Your task to perform on an android device: show emergency info Image 0: 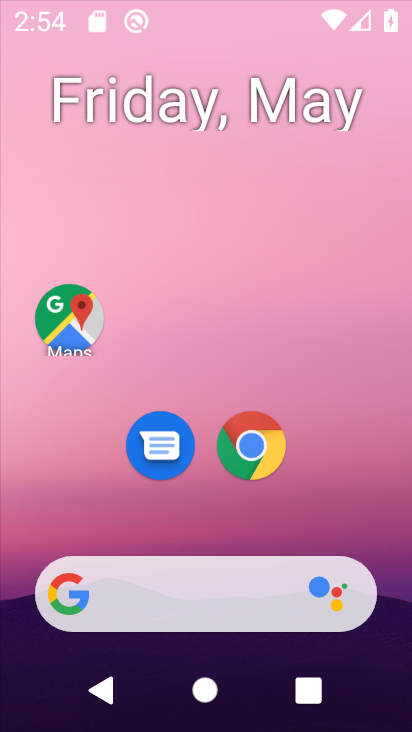
Step 0: click (386, 533)
Your task to perform on an android device: show emergency info Image 1: 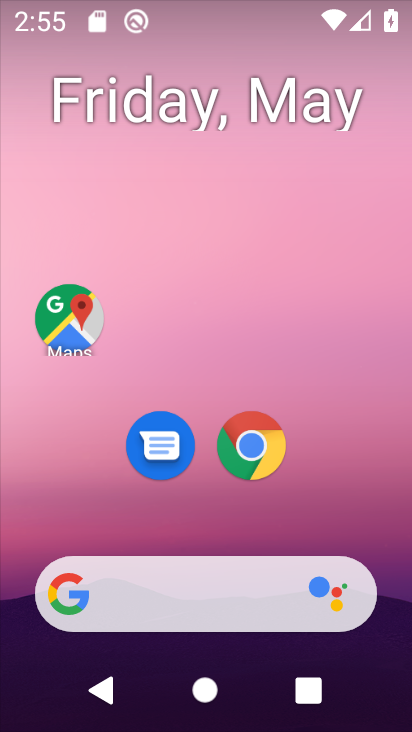
Step 1: drag from (226, 551) to (292, 253)
Your task to perform on an android device: show emergency info Image 2: 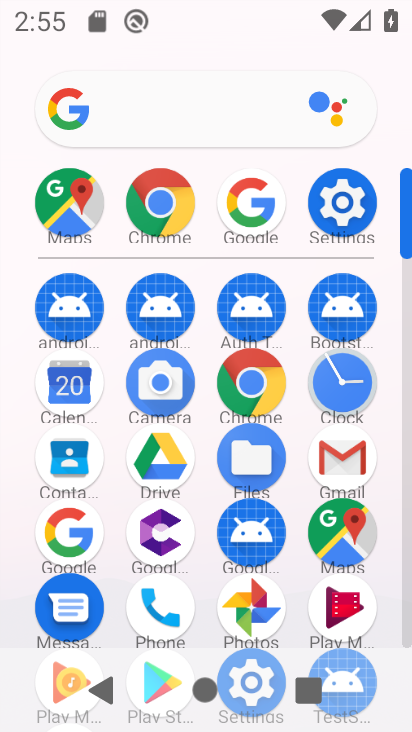
Step 2: click (347, 197)
Your task to perform on an android device: show emergency info Image 3: 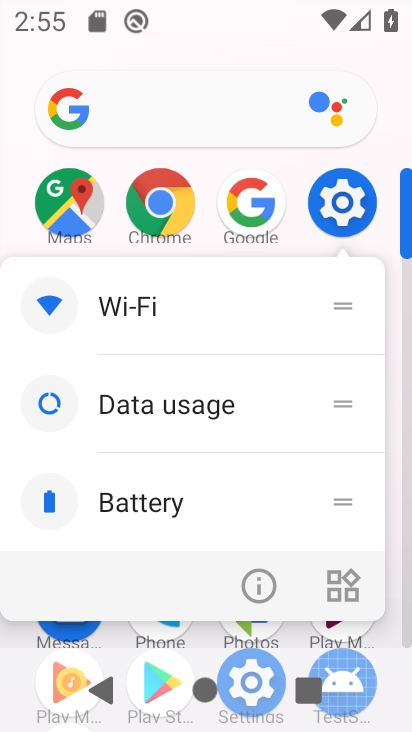
Step 3: click (244, 579)
Your task to perform on an android device: show emergency info Image 4: 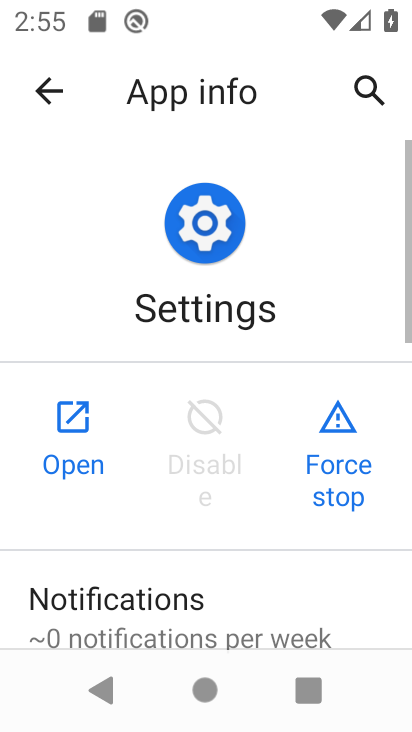
Step 4: click (67, 444)
Your task to perform on an android device: show emergency info Image 5: 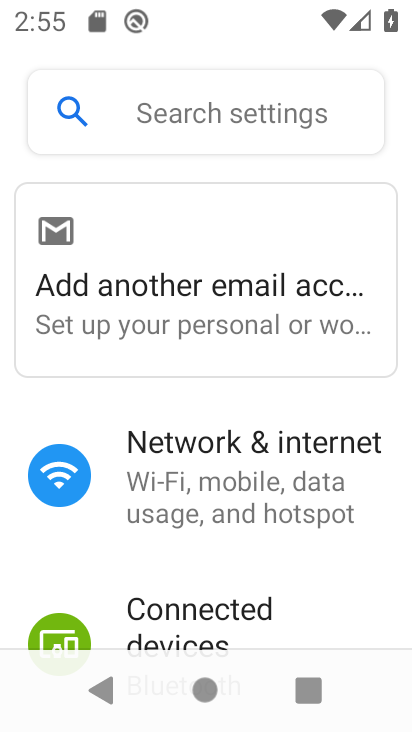
Step 5: drag from (224, 522) to (411, 232)
Your task to perform on an android device: show emergency info Image 6: 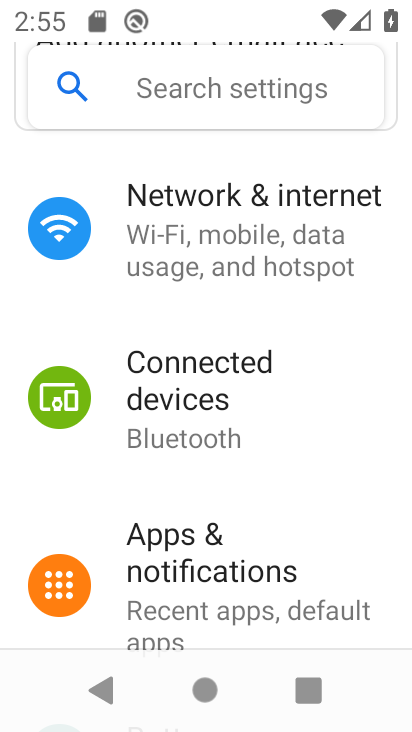
Step 6: drag from (229, 567) to (268, 189)
Your task to perform on an android device: show emergency info Image 7: 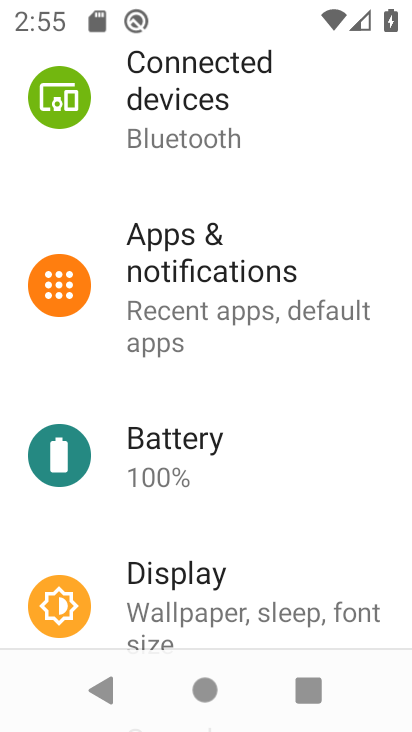
Step 7: drag from (277, 533) to (228, 154)
Your task to perform on an android device: show emergency info Image 8: 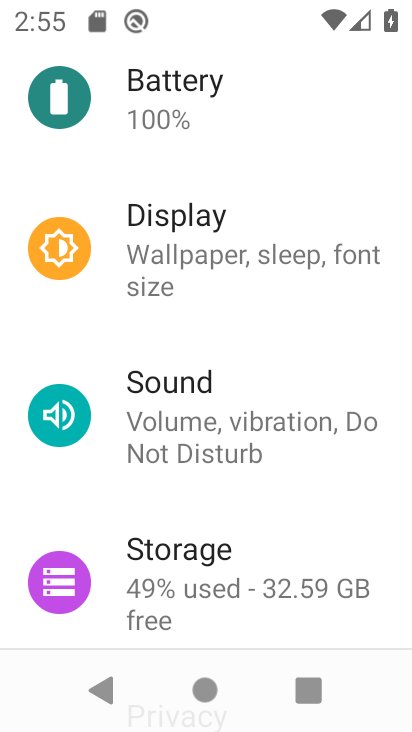
Step 8: drag from (237, 581) to (200, 161)
Your task to perform on an android device: show emergency info Image 9: 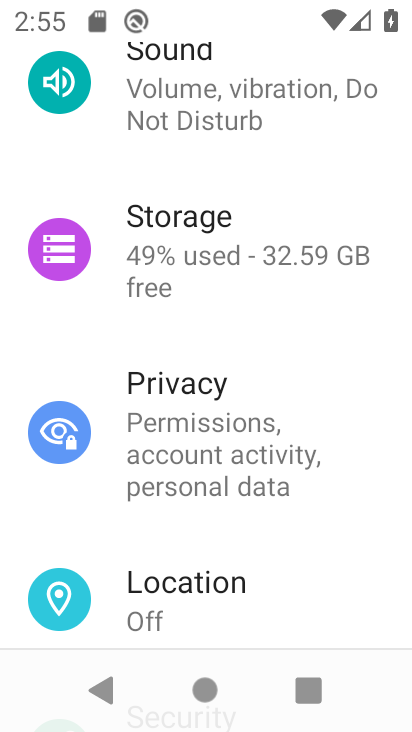
Step 9: drag from (232, 635) to (272, 235)
Your task to perform on an android device: show emergency info Image 10: 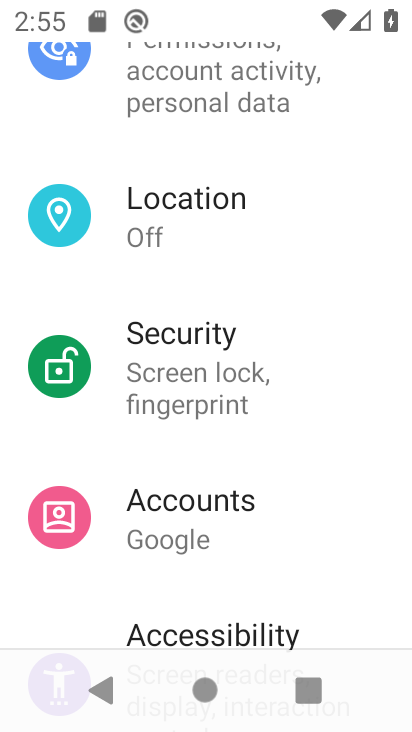
Step 10: drag from (248, 624) to (273, 335)
Your task to perform on an android device: show emergency info Image 11: 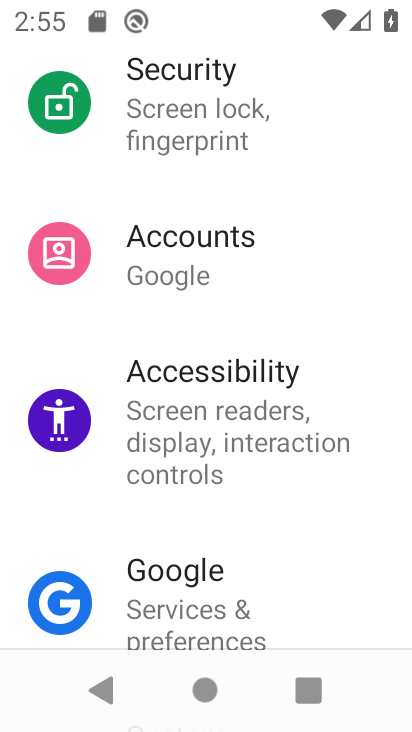
Step 11: drag from (220, 627) to (296, 263)
Your task to perform on an android device: show emergency info Image 12: 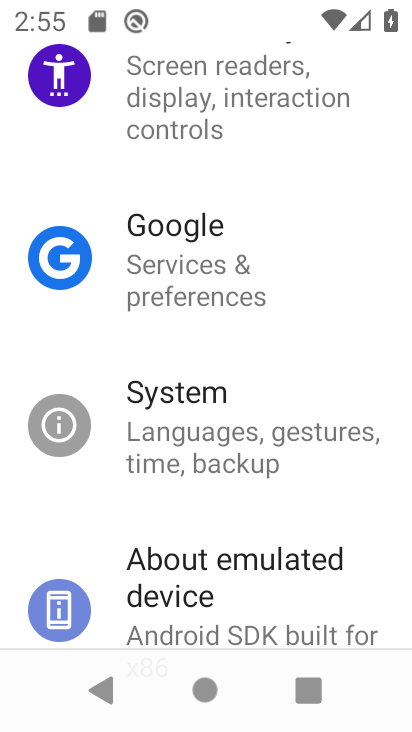
Step 12: drag from (329, 629) to (388, 172)
Your task to perform on an android device: show emergency info Image 13: 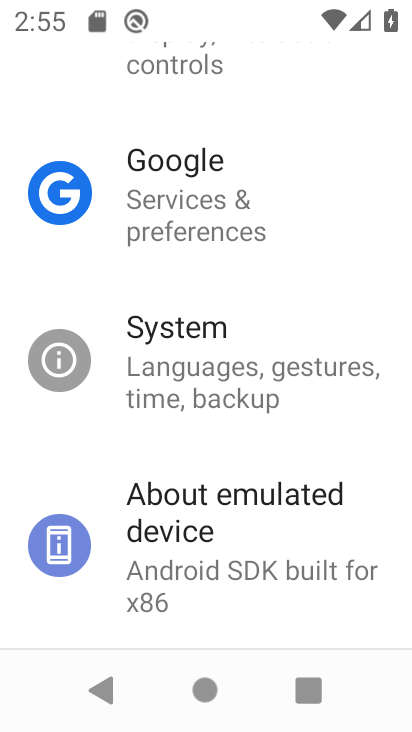
Step 13: click (194, 561)
Your task to perform on an android device: show emergency info Image 14: 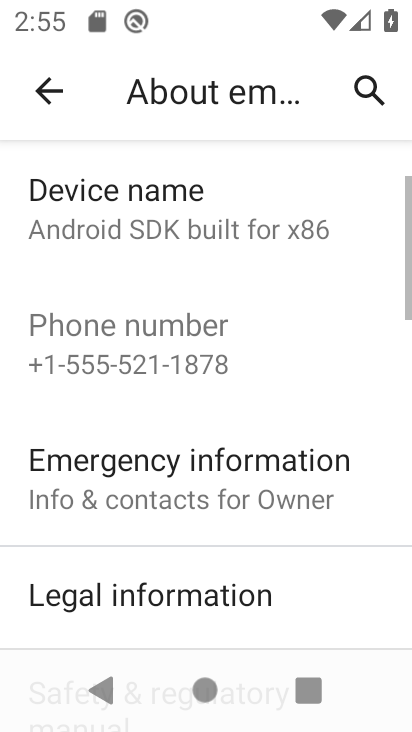
Step 14: click (254, 485)
Your task to perform on an android device: show emergency info Image 15: 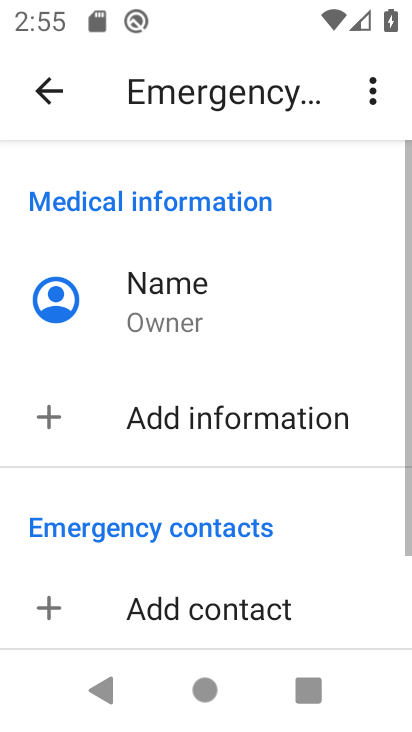
Step 15: task complete